Your task to perform on an android device: change the clock display to digital Image 0: 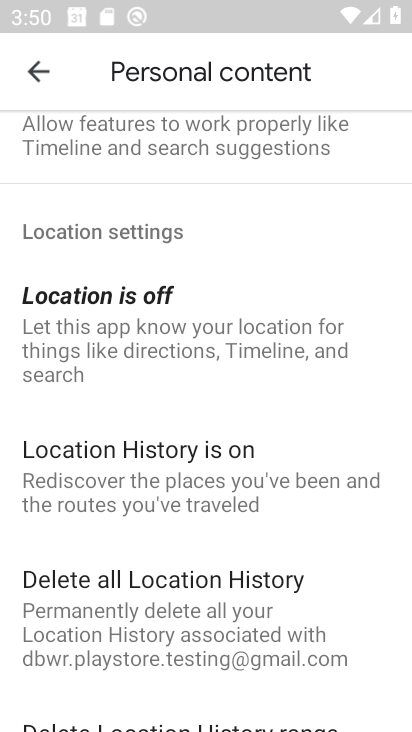
Step 0: press home button
Your task to perform on an android device: change the clock display to digital Image 1: 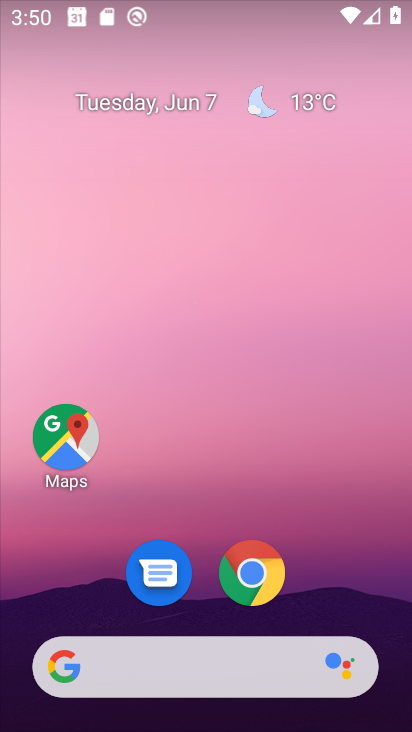
Step 1: drag from (390, 582) to (317, 113)
Your task to perform on an android device: change the clock display to digital Image 2: 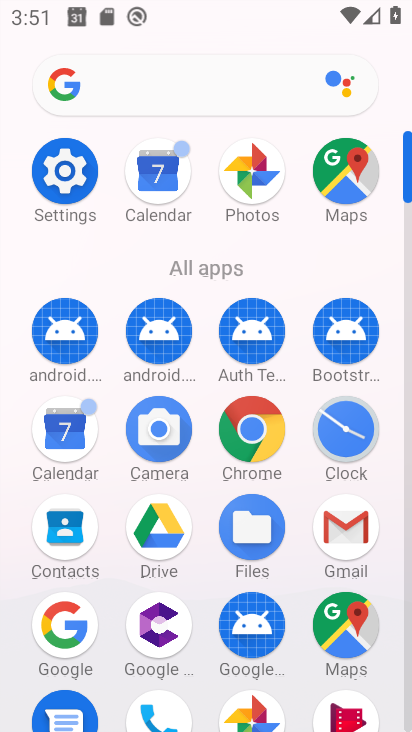
Step 2: click (362, 426)
Your task to perform on an android device: change the clock display to digital Image 3: 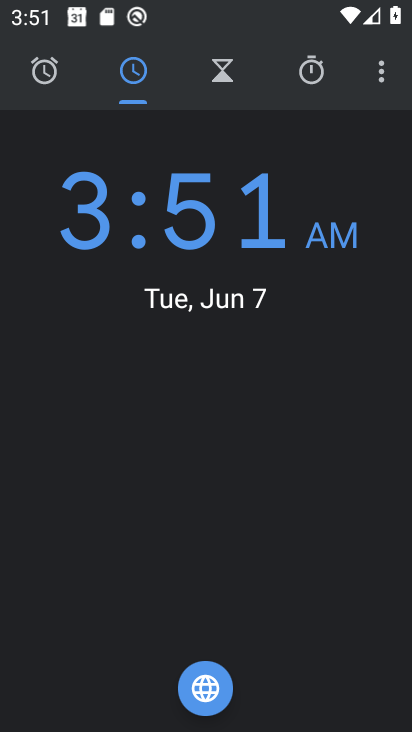
Step 3: click (377, 62)
Your task to perform on an android device: change the clock display to digital Image 4: 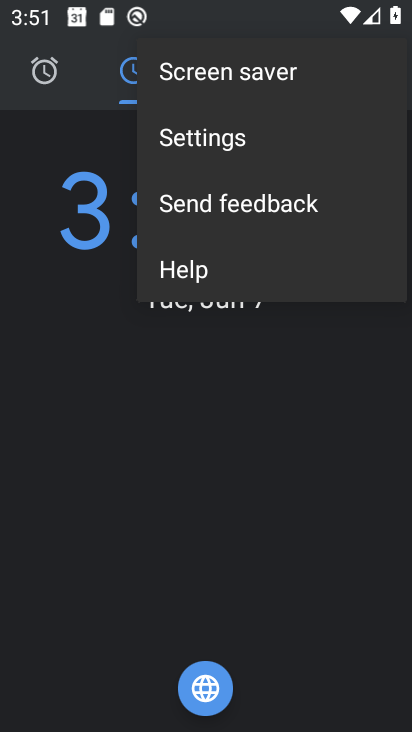
Step 4: click (249, 141)
Your task to perform on an android device: change the clock display to digital Image 5: 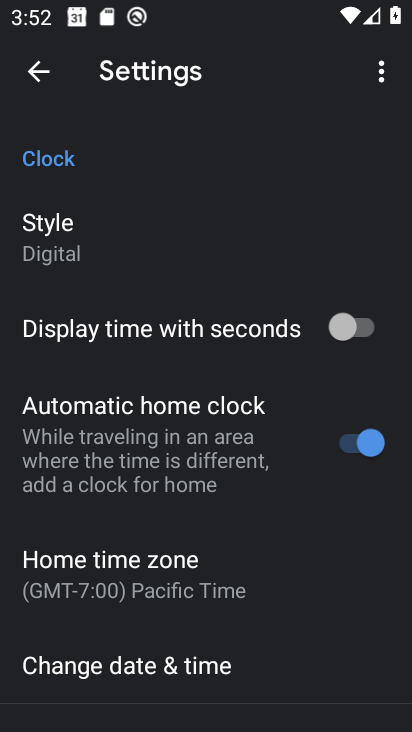
Step 5: click (56, 245)
Your task to perform on an android device: change the clock display to digital Image 6: 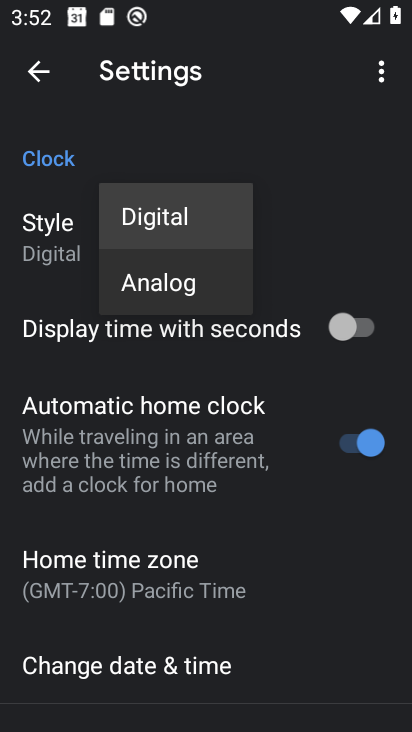
Step 6: click (181, 232)
Your task to perform on an android device: change the clock display to digital Image 7: 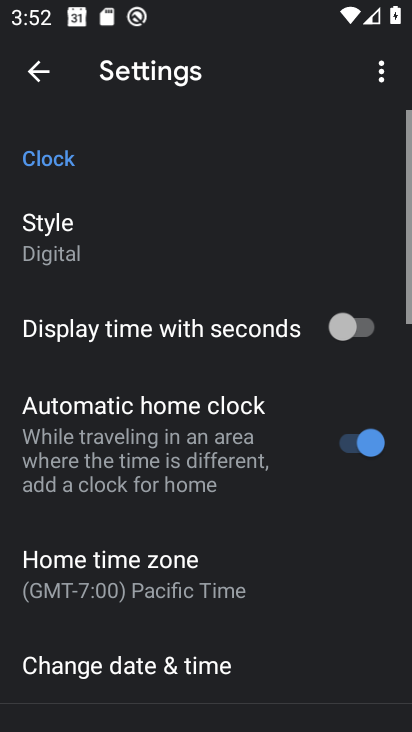
Step 7: task complete